Your task to perform on an android device: Go to CNN.com Image 0: 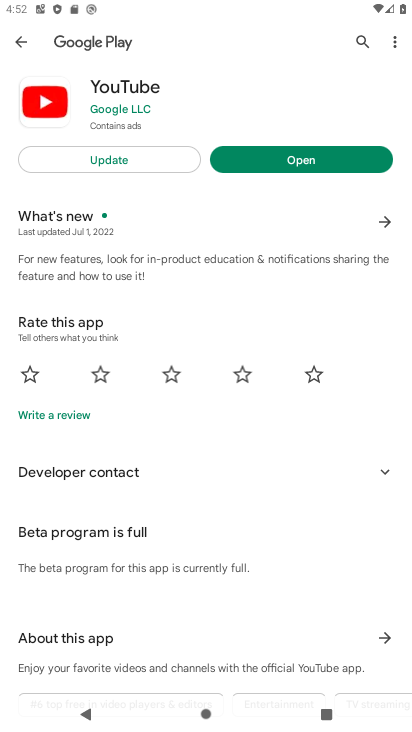
Step 0: press home button
Your task to perform on an android device: Go to CNN.com Image 1: 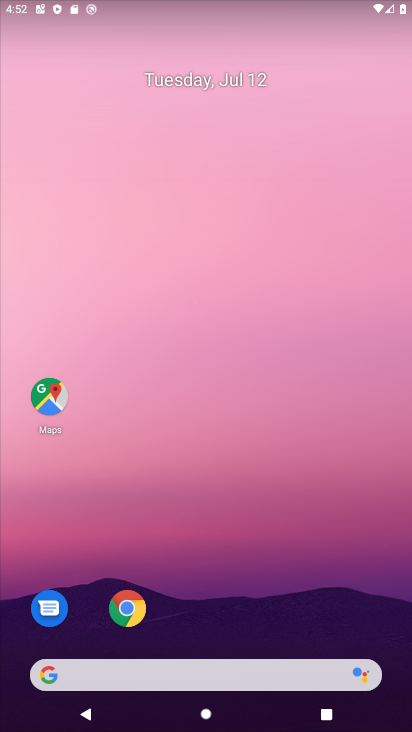
Step 1: click (178, 663)
Your task to perform on an android device: Go to CNN.com Image 2: 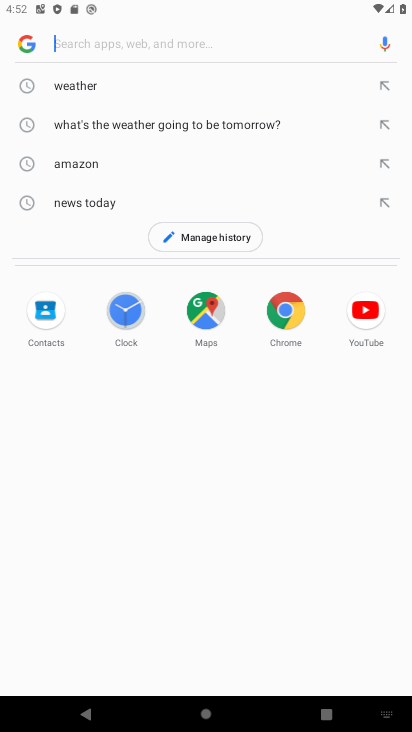
Step 2: type "cnn"
Your task to perform on an android device: Go to CNN.com Image 3: 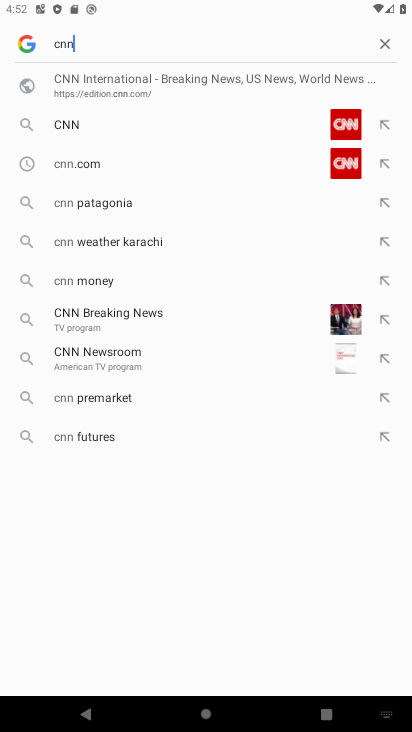
Step 3: click (120, 82)
Your task to perform on an android device: Go to CNN.com Image 4: 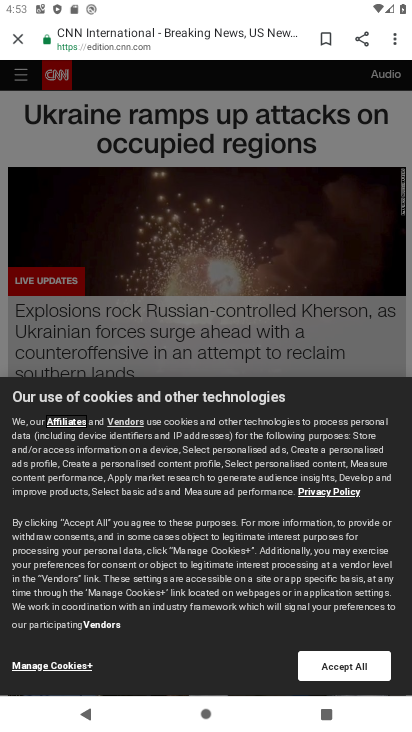
Step 4: task complete